Your task to perform on an android device: Add razer blade to the cart on target.com Image 0: 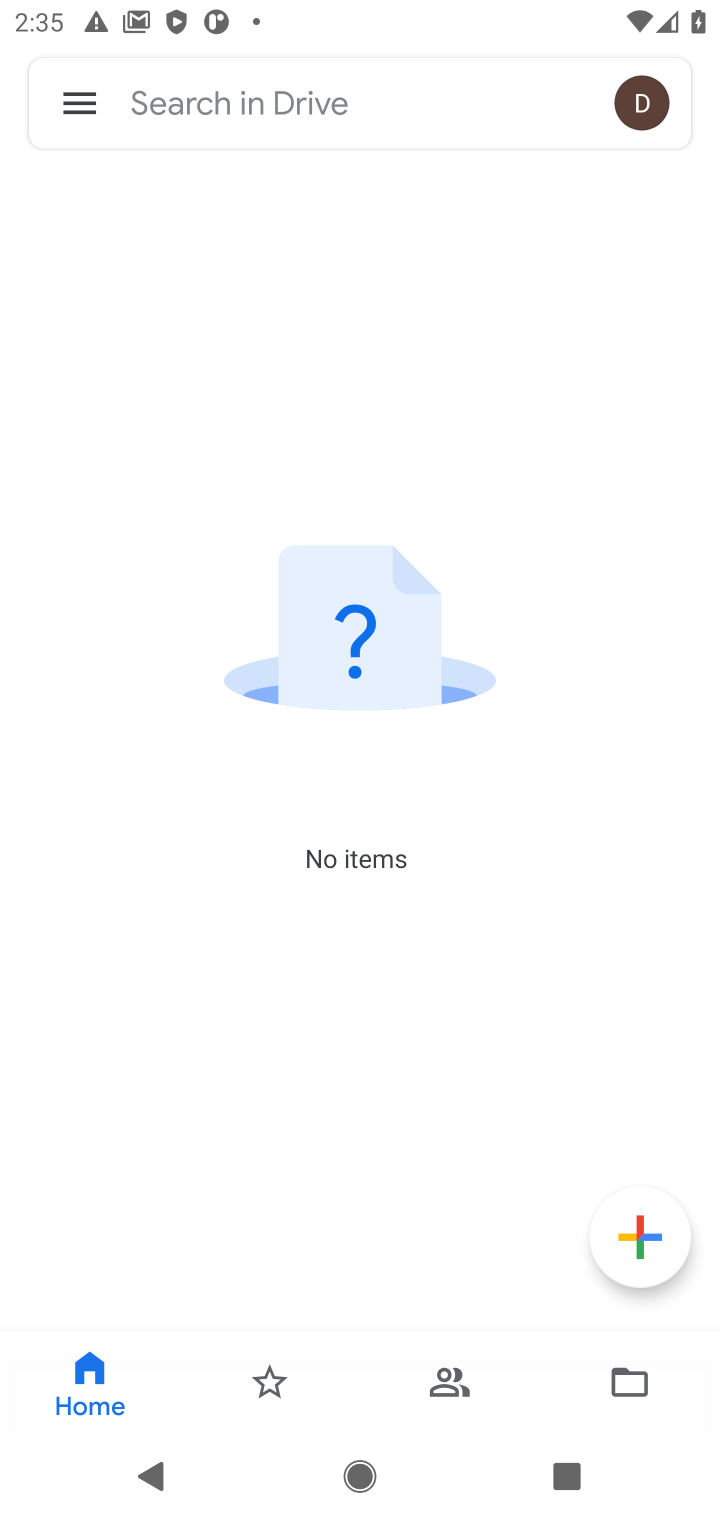
Step 0: press home button
Your task to perform on an android device: Add razer blade to the cart on target.com Image 1: 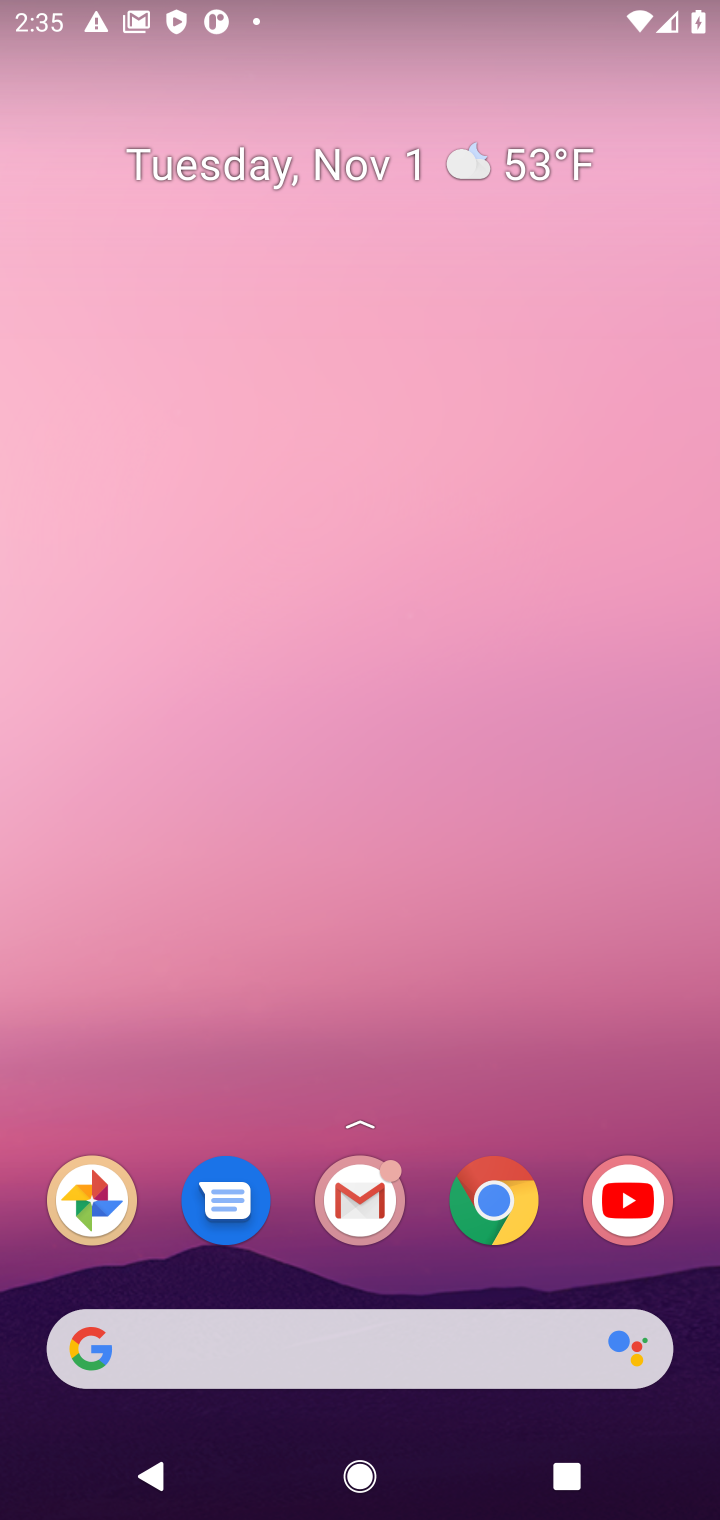
Step 1: click (103, 1341)
Your task to perform on an android device: Add razer blade to the cart on target.com Image 2: 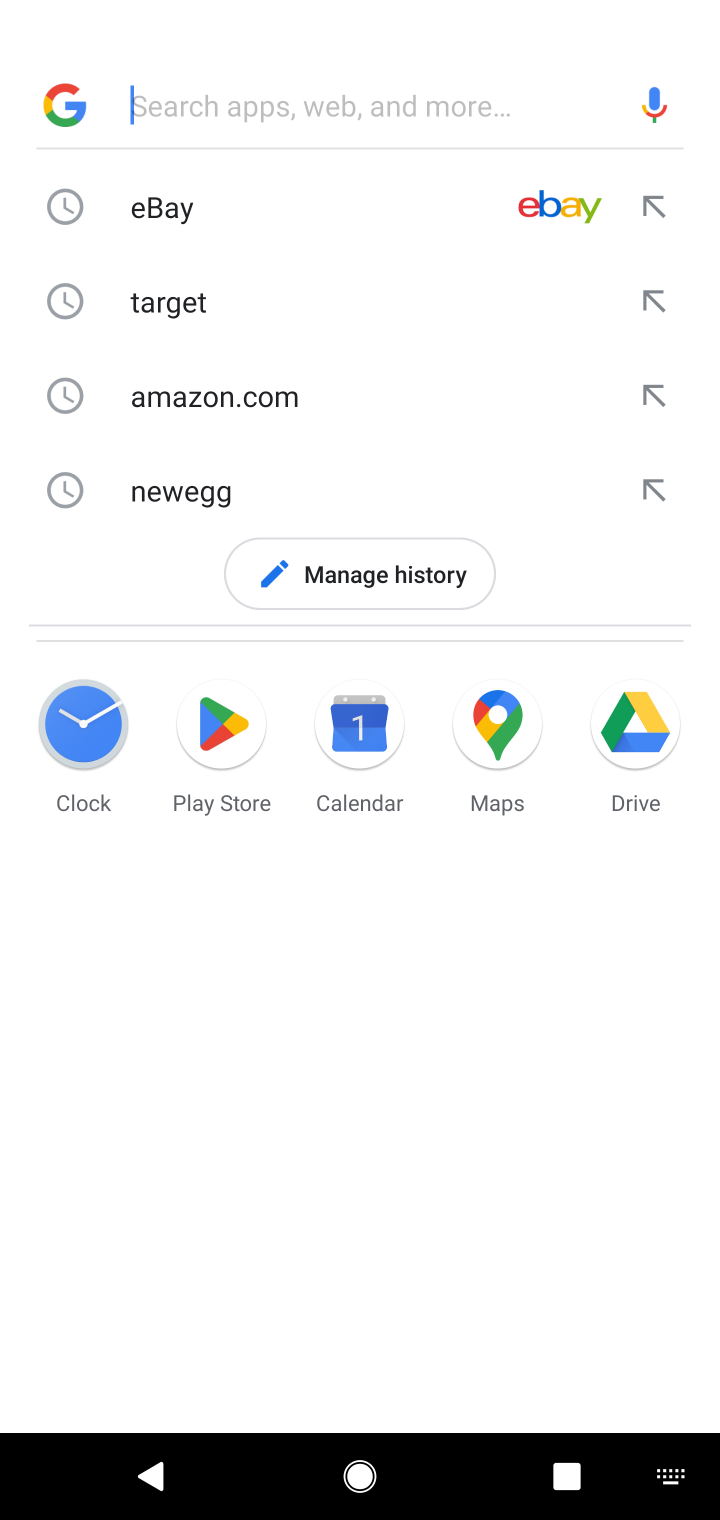
Step 2: click (296, 98)
Your task to perform on an android device: Add razer blade to the cart on target.com Image 3: 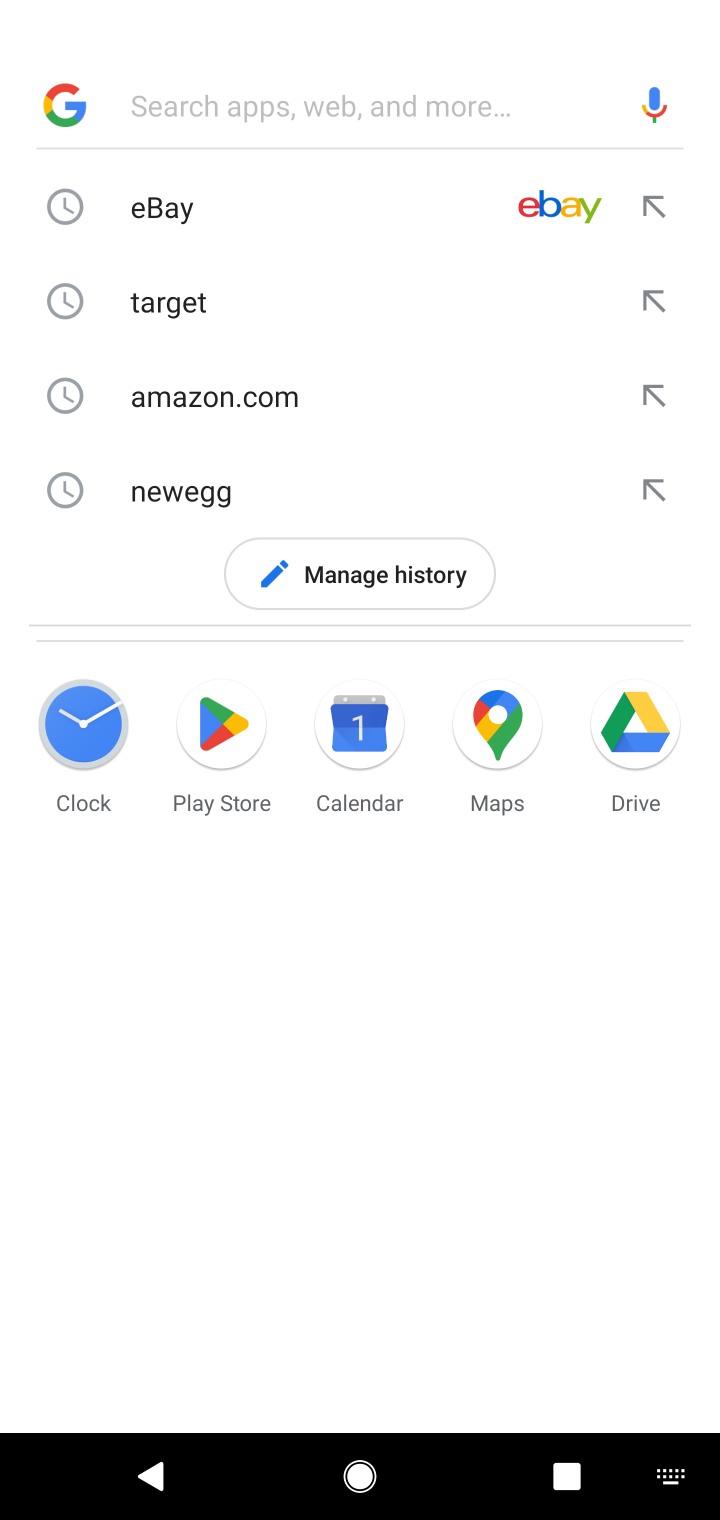
Step 3: type "target"
Your task to perform on an android device: Add razer blade to the cart on target.com Image 4: 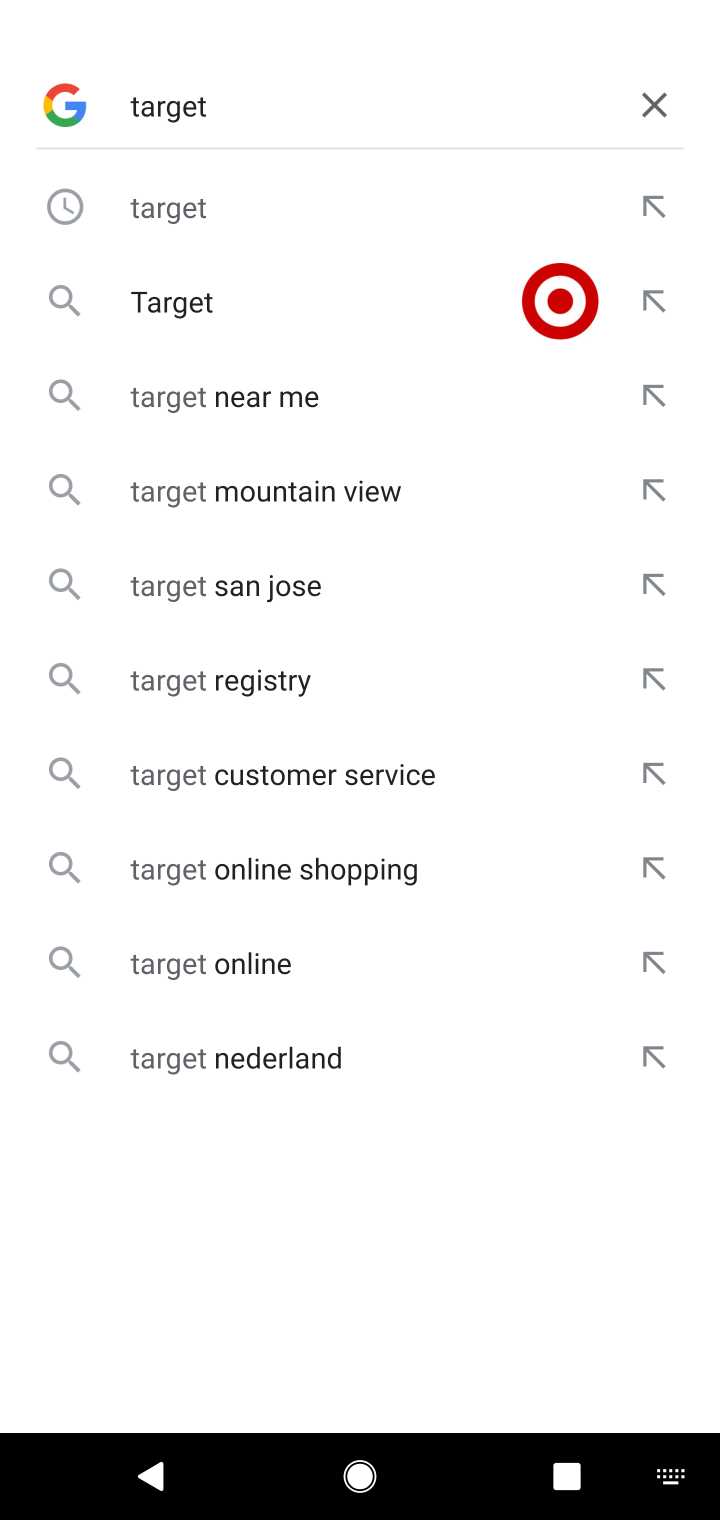
Step 4: click (184, 219)
Your task to perform on an android device: Add razer blade to the cart on target.com Image 5: 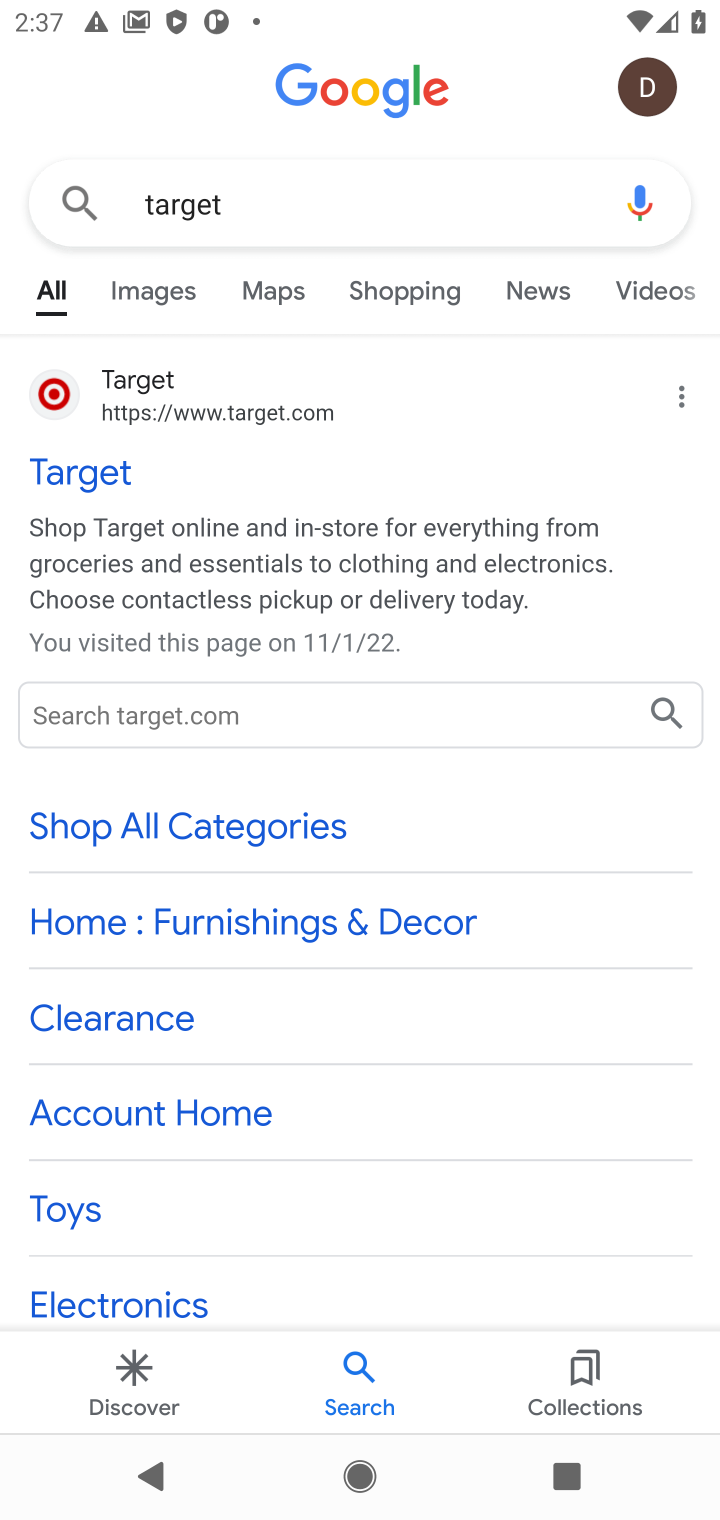
Step 5: click (89, 471)
Your task to perform on an android device: Add razer blade to the cart on target.com Image 6: 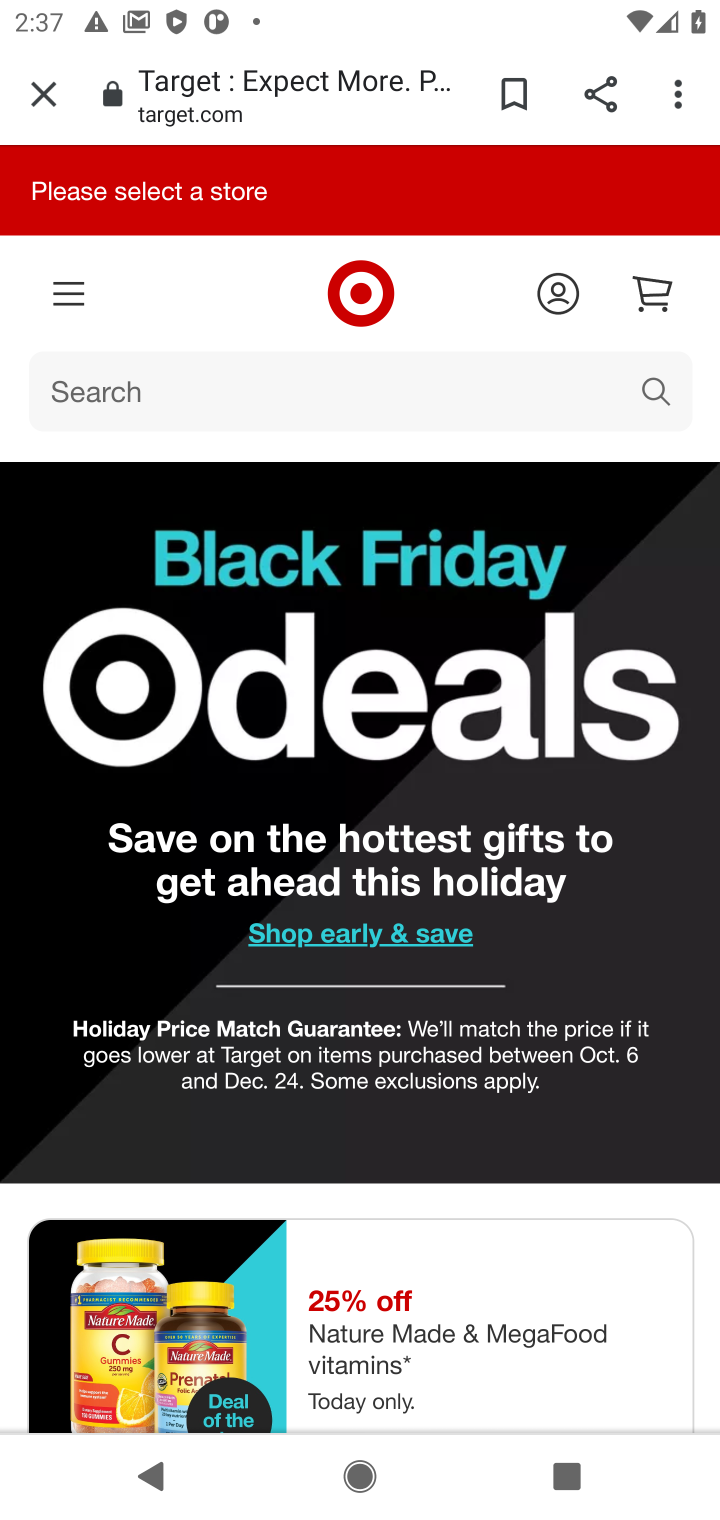
Step 6: click (650, 393)
Your task to perform on an android device: Add razer blade to the cart on target.com Image 7: 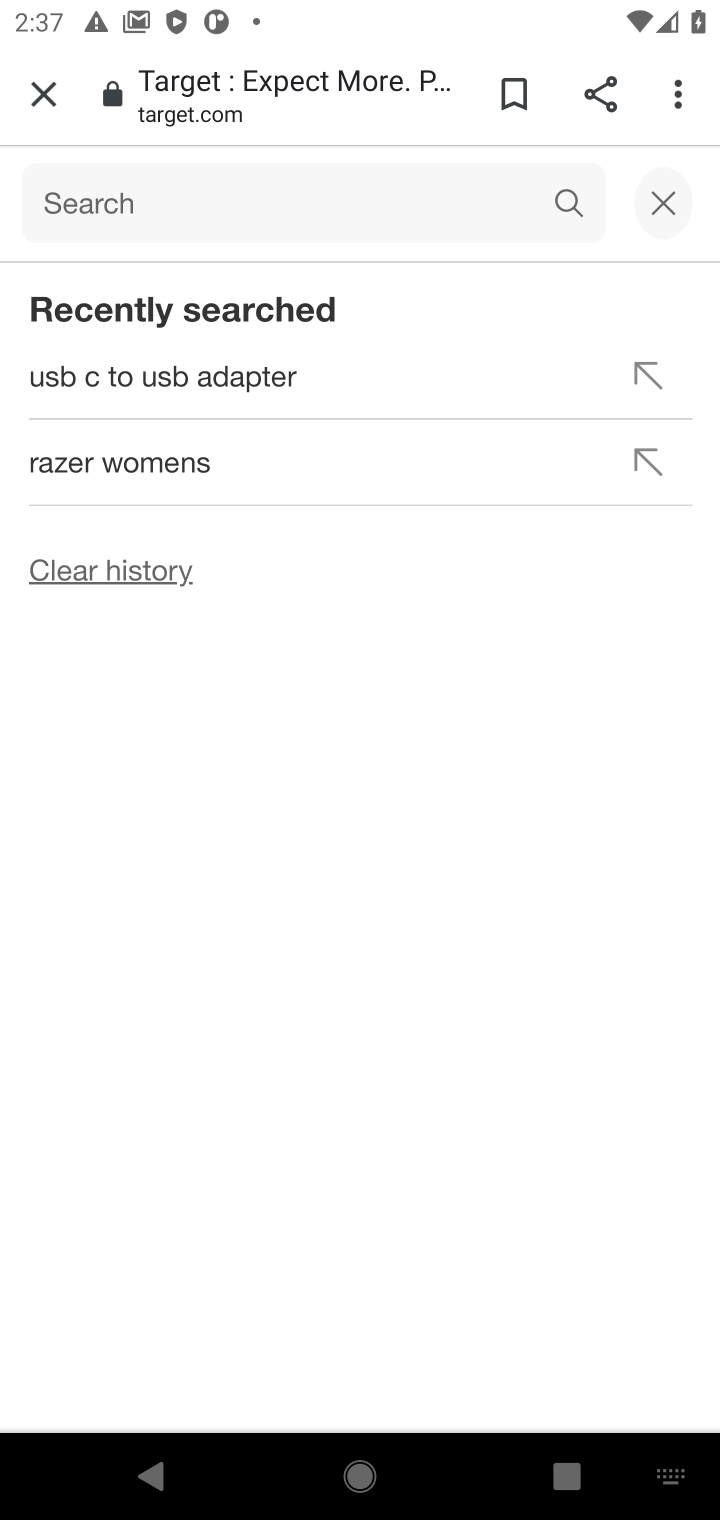
Step 7: type "razer blade"
Your task to perform on an android device: Add razer blade to the cart on target.com Image 8: 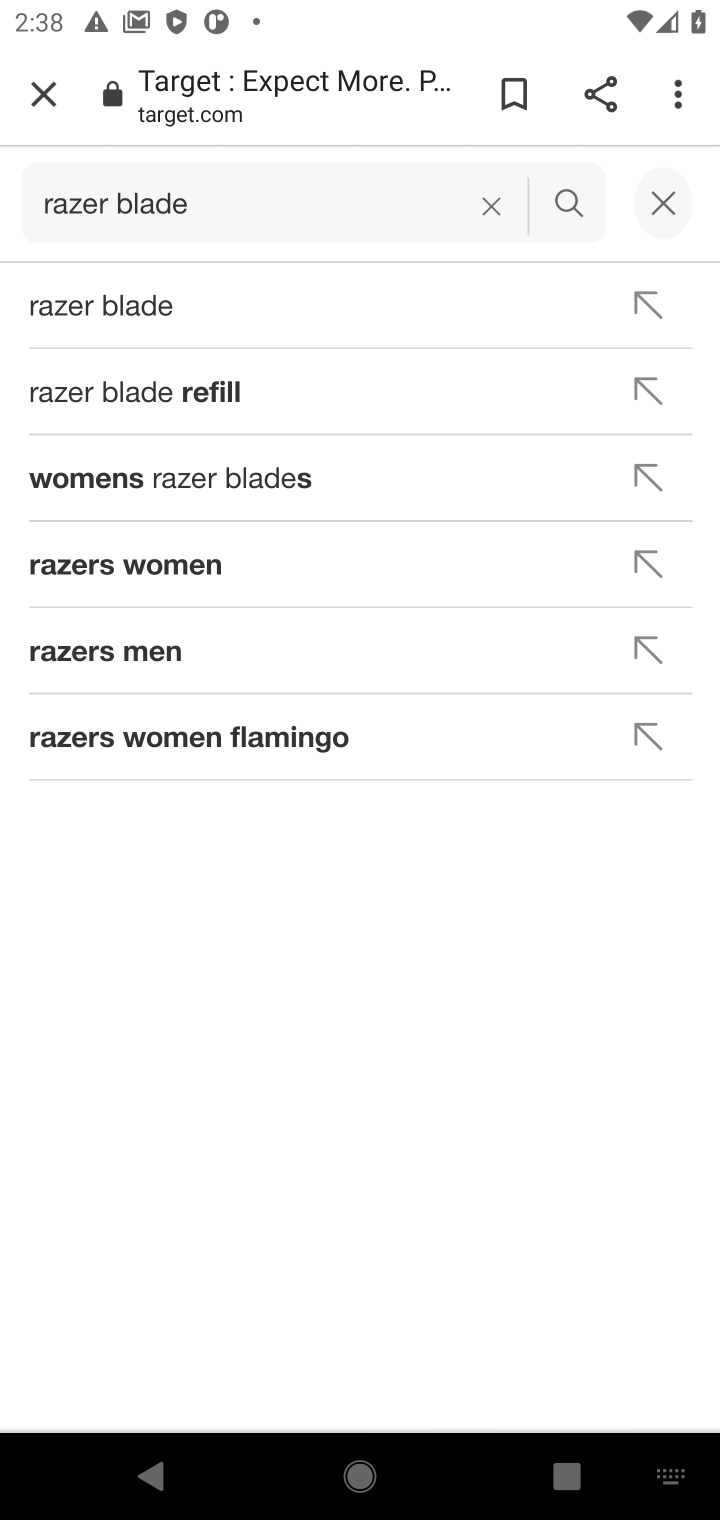
Step 8: click (128, 304)
Your task to perform on an android device: Add razer blade to the cart on target.com Image 9: 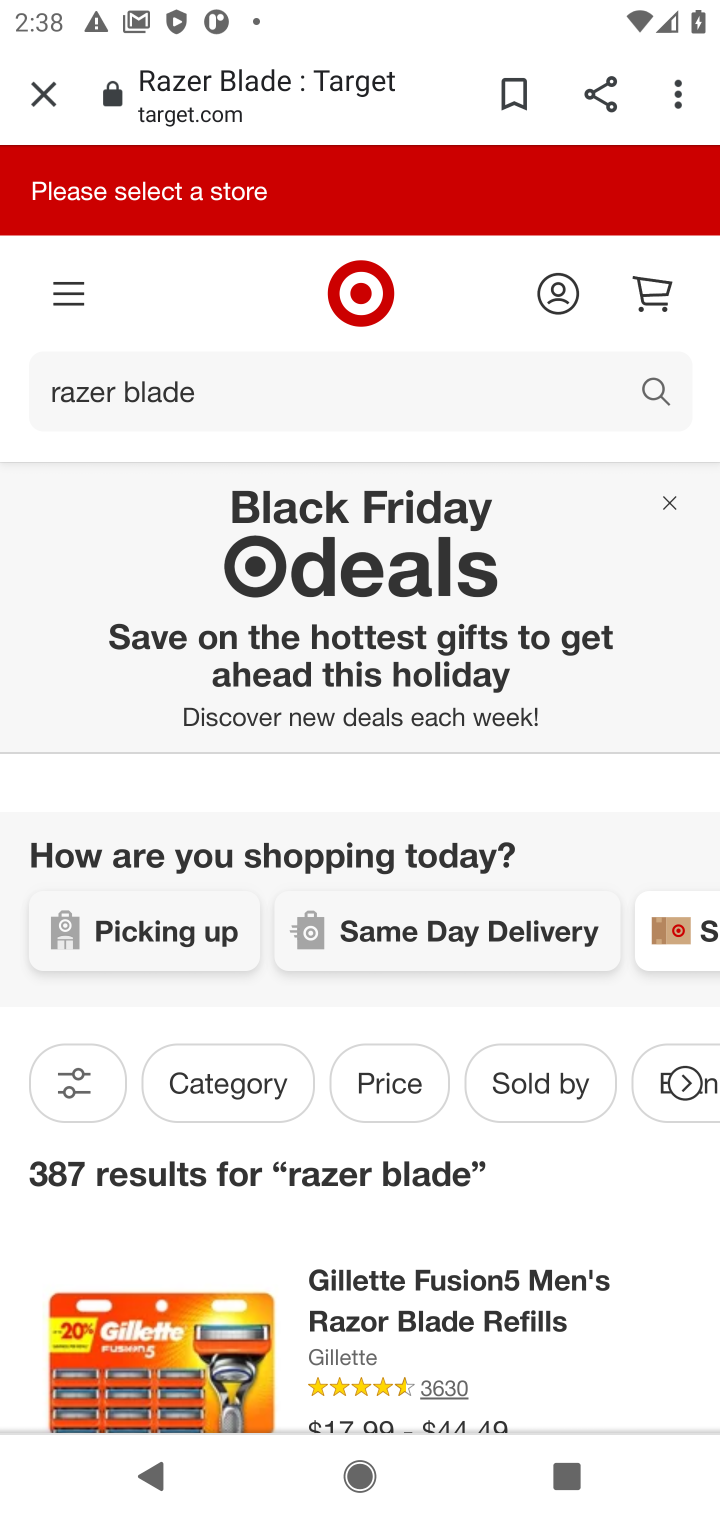
Step 9: drag from (413, 1080) to (386, 352)
Your task to perform on an android device: Add razer blade to the cart on target.com Image 10: 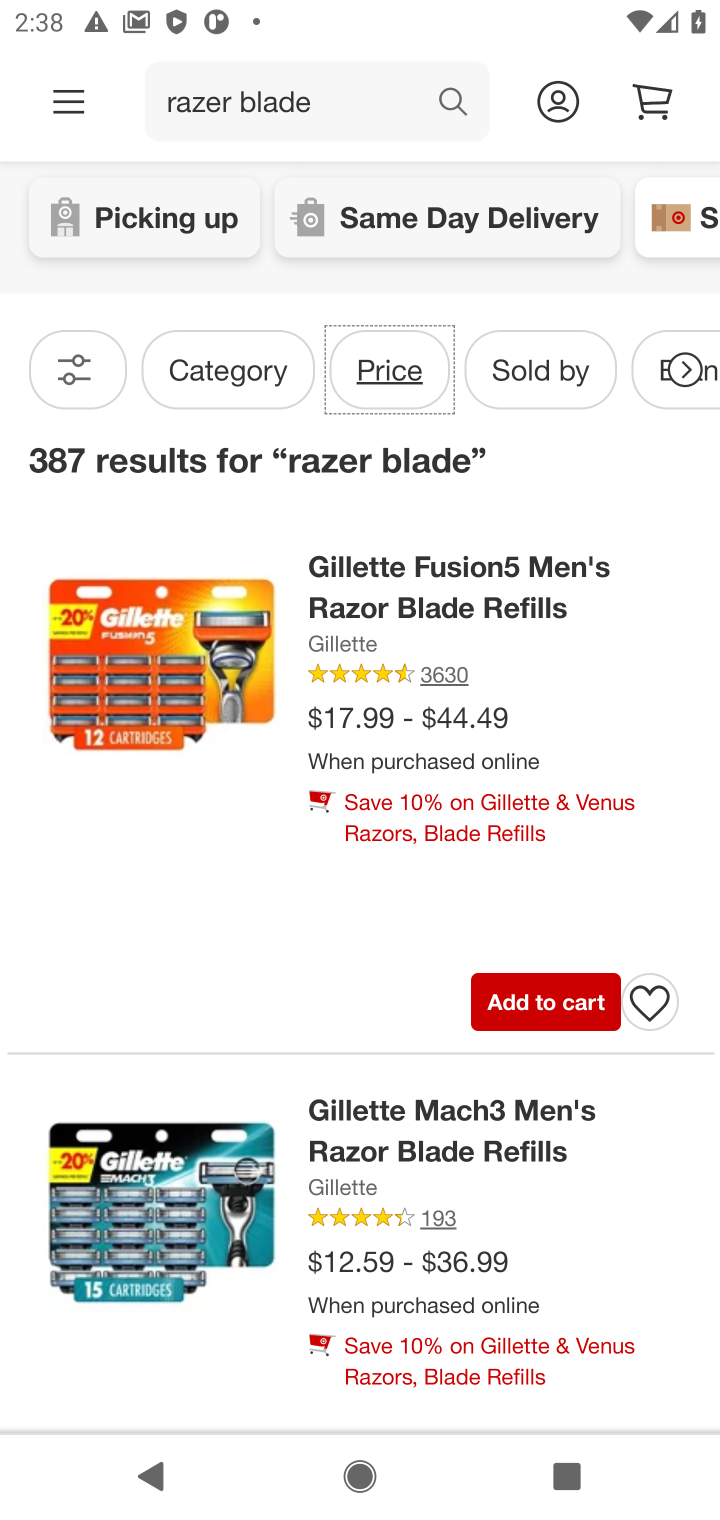
Step 10: click (536, 1014)
Your task to perform on an android device: Add razer blade to the cart on target.com Image 11: 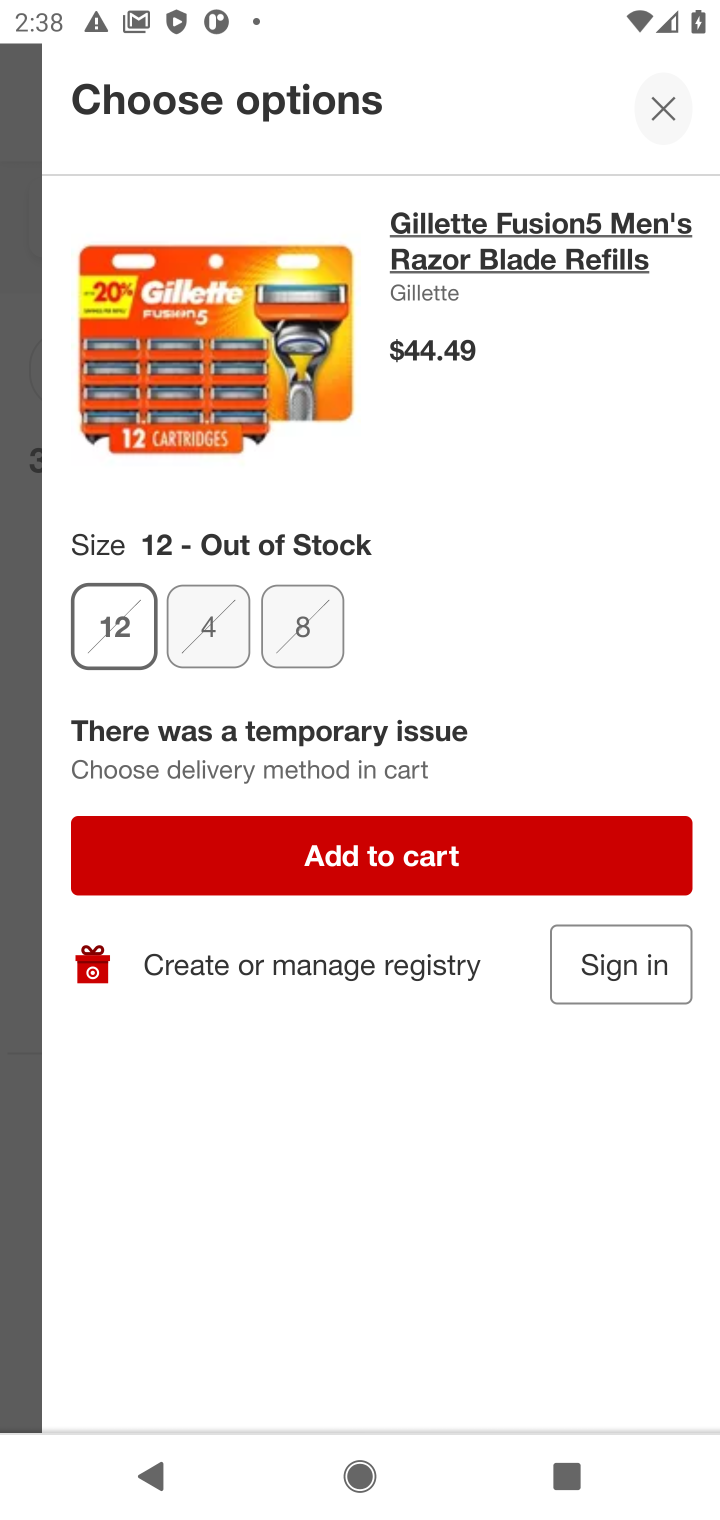
Step 11: click (369, 855)
Your task to perform on an android device: Add razer blade to the cart on target.com Image 12: 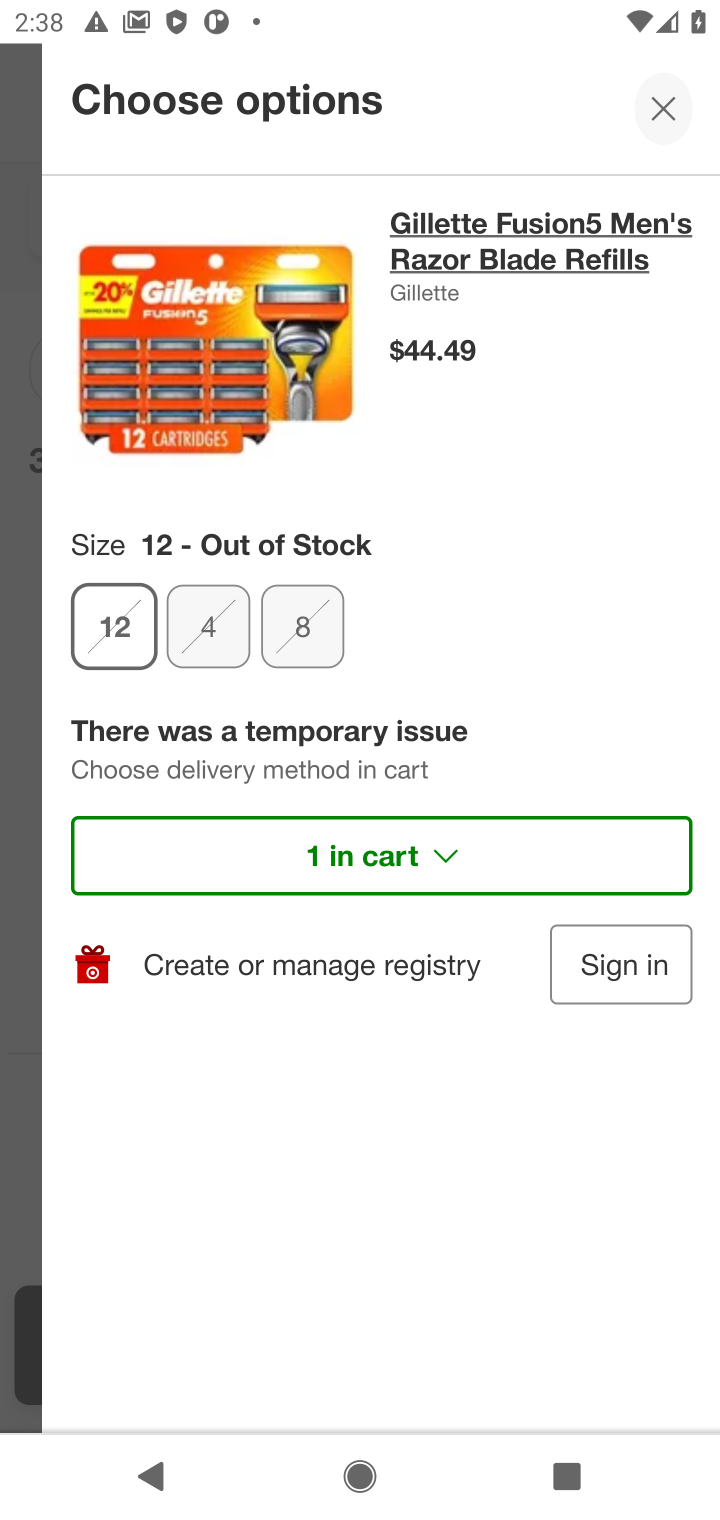
Step 12: task complete